Your task to perform on an android device: turn on improve location accuracy Image 0: 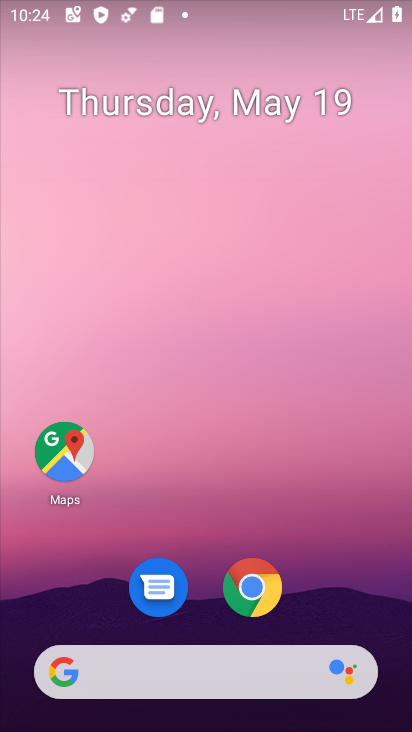
Step 0: drag from (191, 623) to (195, 303)
Your task to perform on an android device: turn on improve location accuracy Image 1: 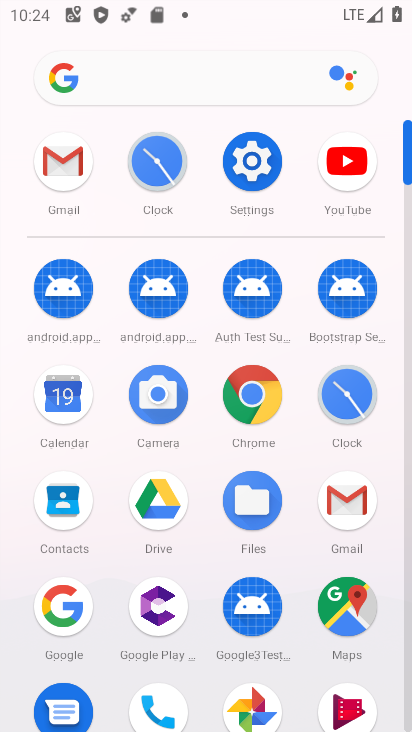
Step 1: click (241, 138)
Your task to perform on an android device: turn on improve location accuracy Image 2: 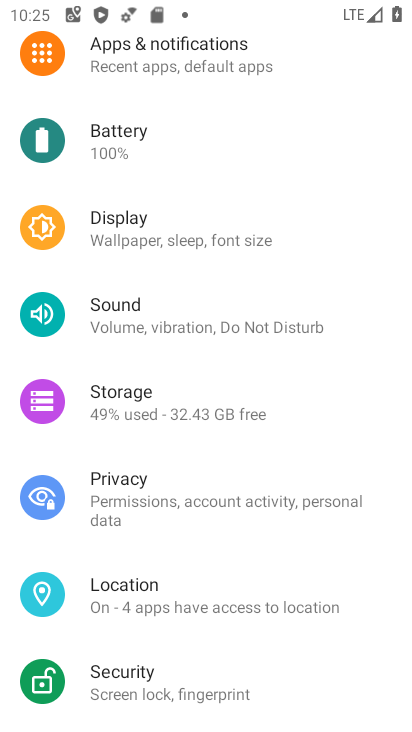
Step 2: click (179, 601)
Your task to perform on an android device: turn on improve location accuracy Image 3: 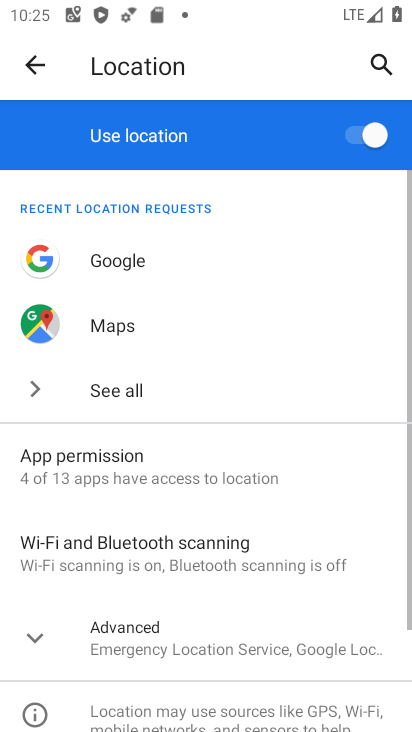
Step 3: drag from (179, 601) to (206, 98)
Your task to perform on an android device: turn on improve location accuracy Image 4: 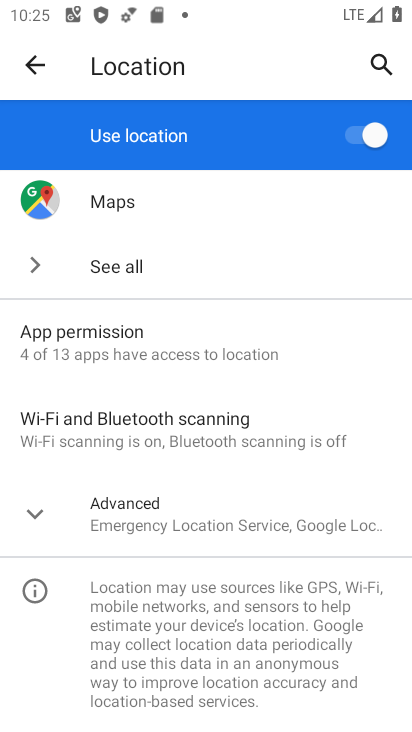
Step 4: click (169, 549)
Your task to perform on an android device: turn on improve location accuracy Image 5: 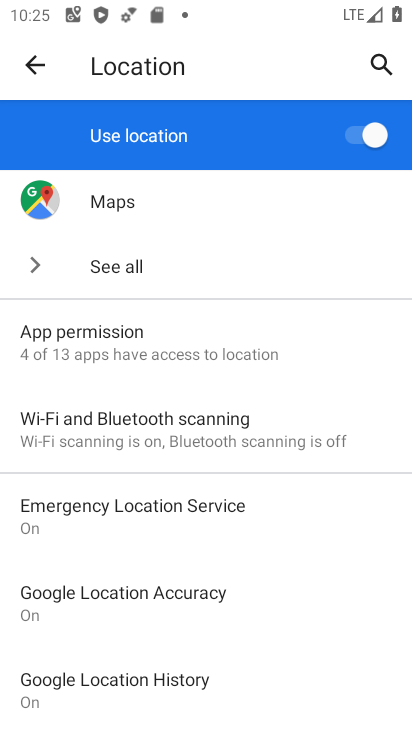
Step 5: drag from (169, 549) to (196, 268)
Your task to perform on an android device: turn on improve location accuracy Image 6: 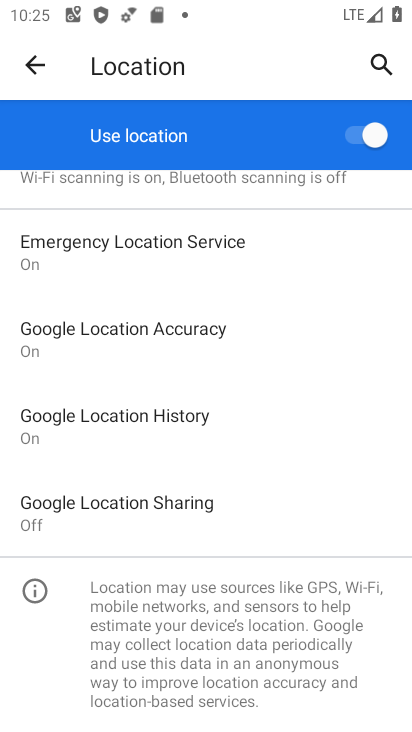
Step 6: click (117, 353)
Your task to perform on an android device: turn on improve location accuracy Image 7: 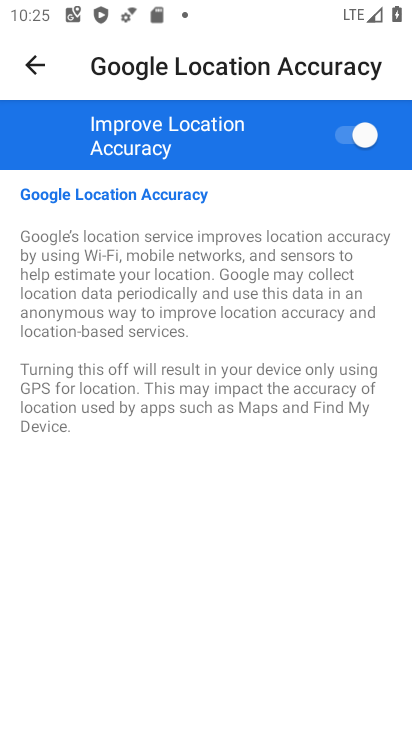
Step 7: task complete